Your task to perform on an android device: Open Amazon Image 0: 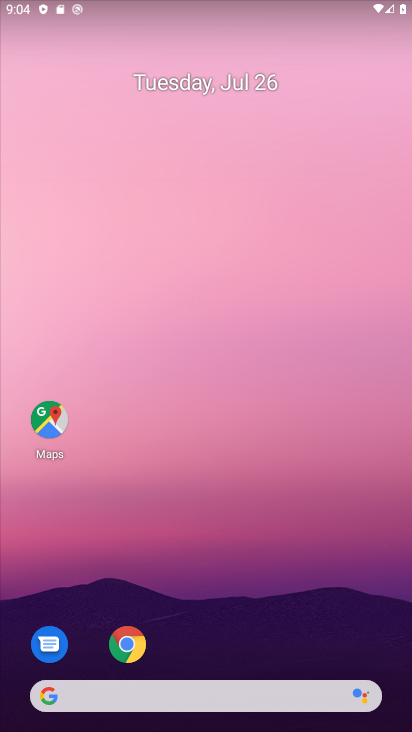
Step 0: click (133, 650)
Your task to perform on an android device: Open Amazon Image 1: 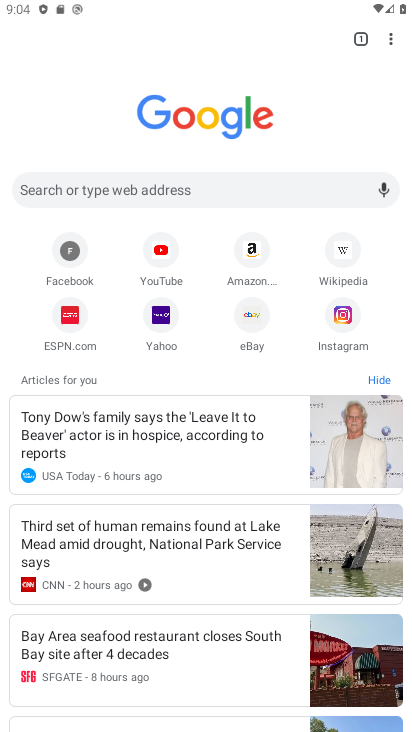
Step 1: click (252, 248)
Your task to perform on an android device: Open Amazon Image 2: 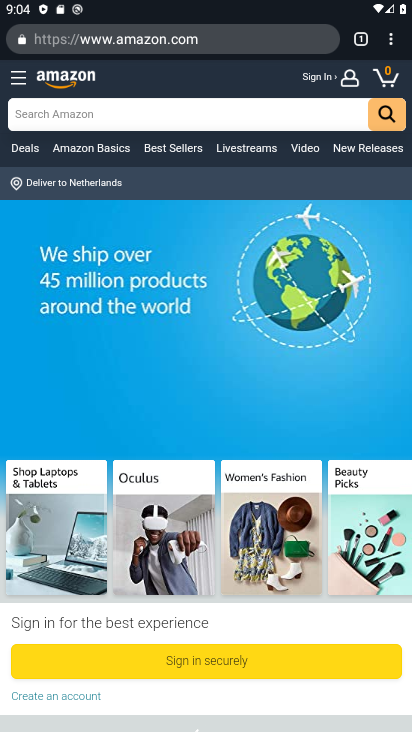
Step 2: task complete